Your task to perform on an android device: What's on my calendar today? Image 0: 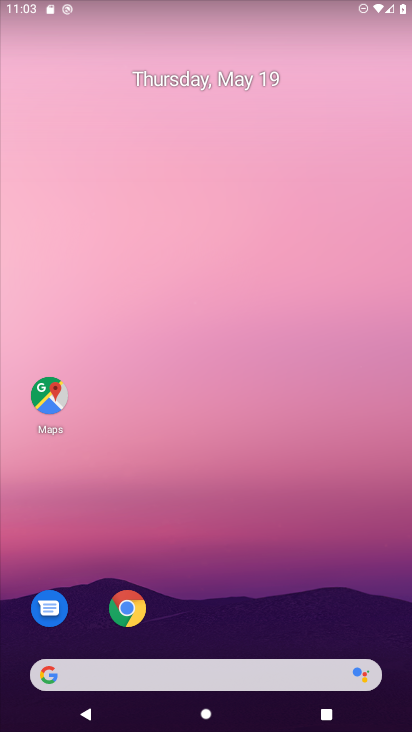
Step 0: drag from (282, 613) to (274, 30)
Your task to perform on an android device: What's on my calendar today? Image 1: 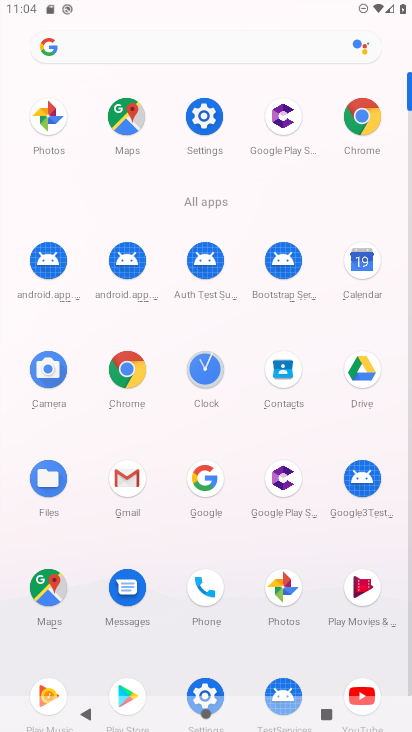
Step 1: click (360, 270)
Your task to perform on an android device: What's on my calendar today? Image 2: 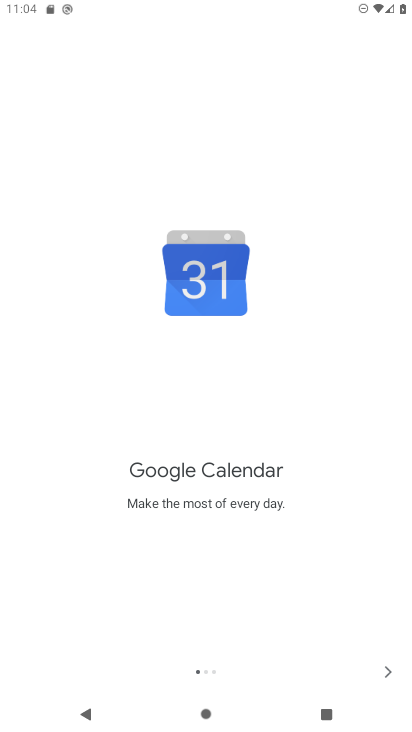
Step 2: click (389, 671)
Your task to perform on an android device: What's on my calendar today? Image 3: 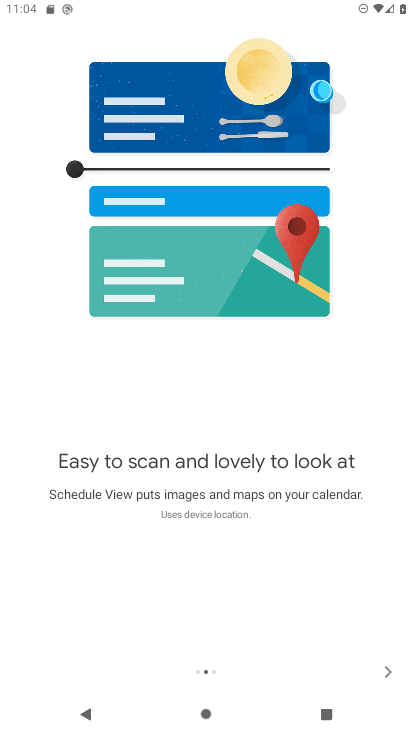
Step 3: click (385, 673)
Your task to perform on an android device: What's on my calendar today? Image 4: 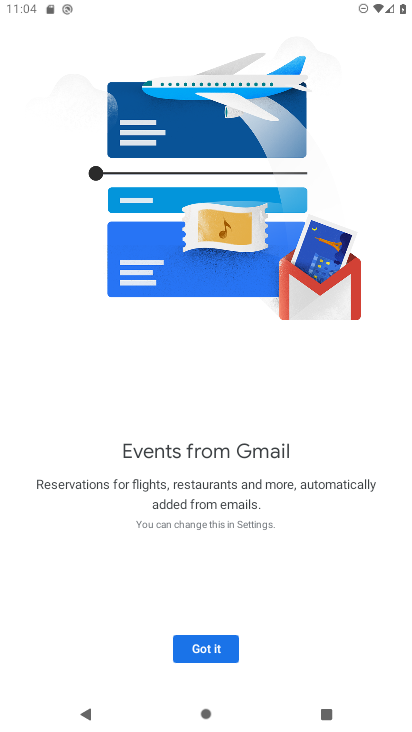
Step 4: click (199, 659)
Your task to perform on an android device: What's on my calendar today? Image 5: 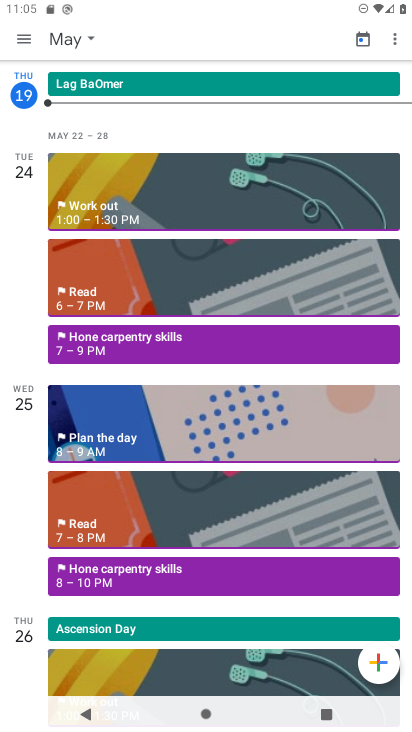
Step 5: click (78, 40)
Your task to perform on an android device: What's on my calendar today? Image 6: 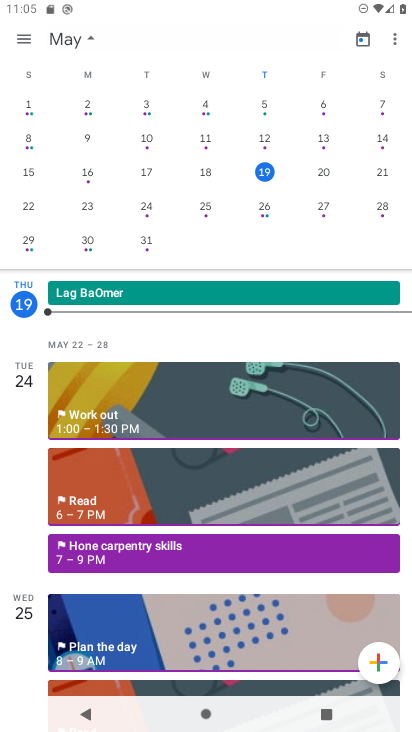
Step 6: click (90, 33)
Your task to perform on an android device: What's on my calendar today? Image 7: 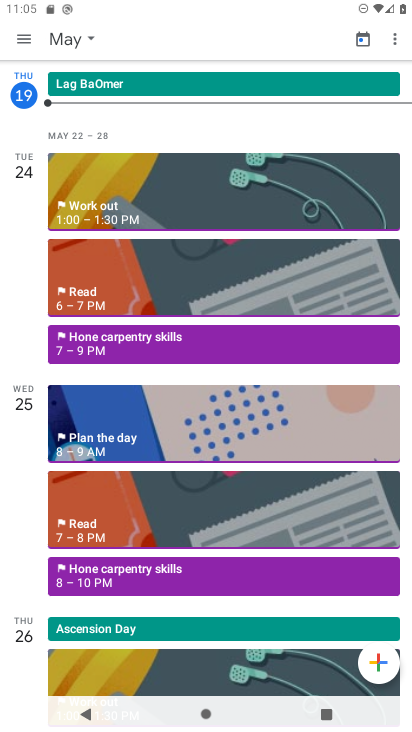
Step 7: click (96, 44)
Your task to perform on an android device: What's on my calendar today? Image 8: 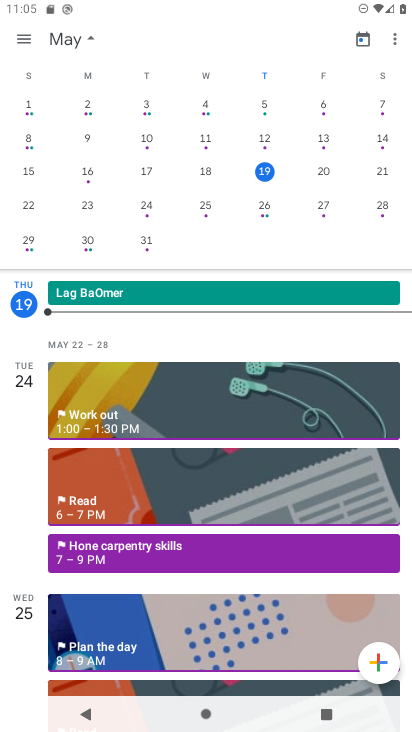
Step 8: click (327, 162)
Your task to perform on an android device: What's on my calendar today? Image 9: 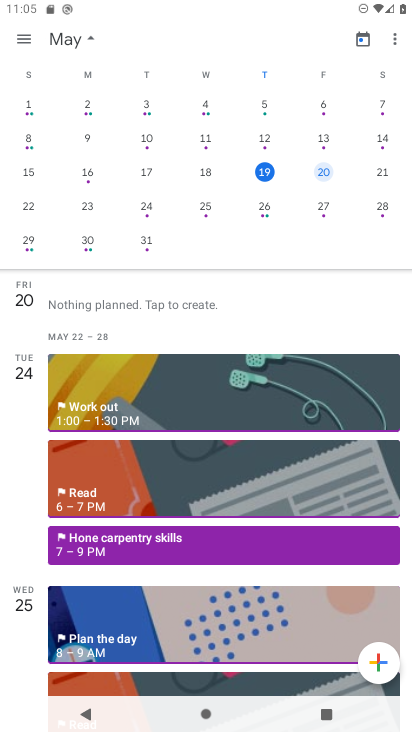
Step 9: click (94, 39)
Your task to perform on an android device: What's on my calendar today? Image 10: 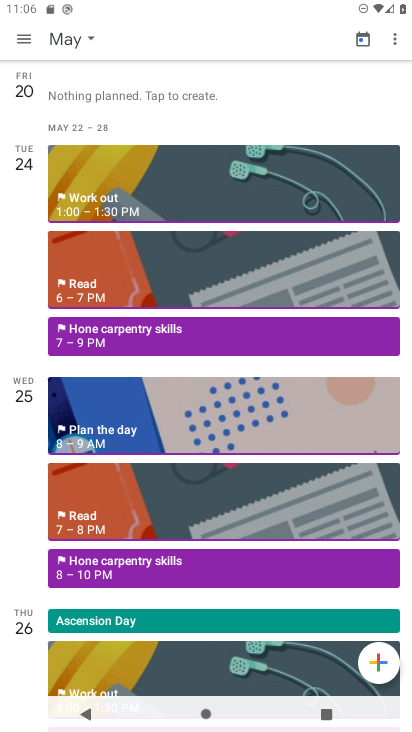
Step 10: click (80, 36)
Your task to perform on an android device: What's on my calendar today? Image 11: 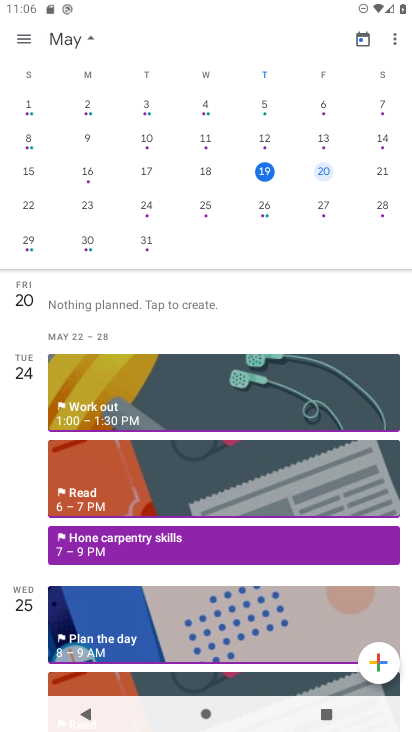
Step 11: click (78, 35)
Your task to perform on an android device: What's on my calendar today? Image 12: 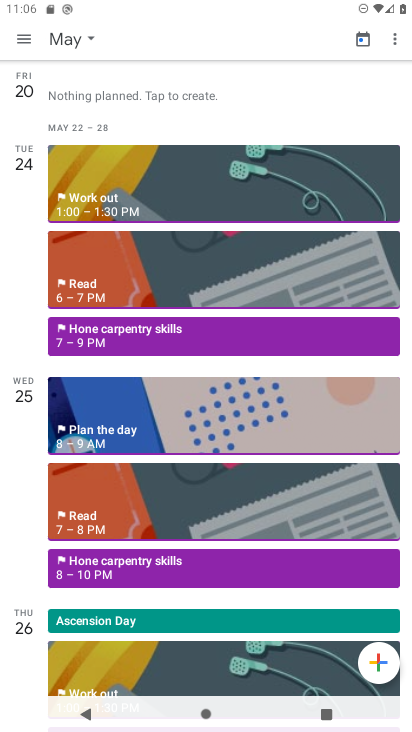
Step 12: task complete